Your task to perform on an android device: Open Google Image 0: 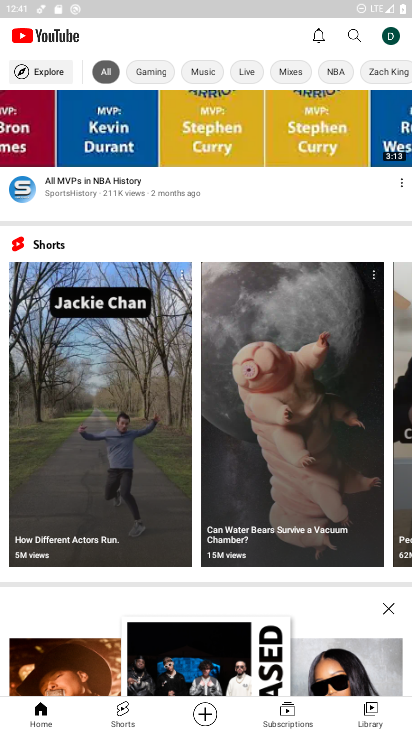
Step 0: drag from (269, 623) to (230, 54)
Your task to perform on an android device: Open Google Image 1: 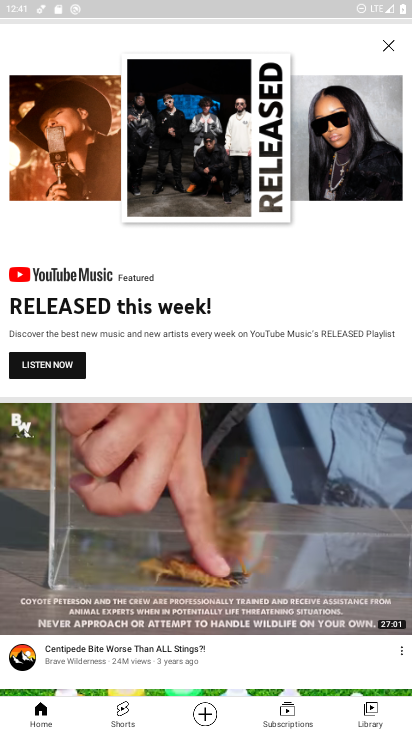
Step 1: press home button
Your task to perform on an android device: Open Google Image 2: 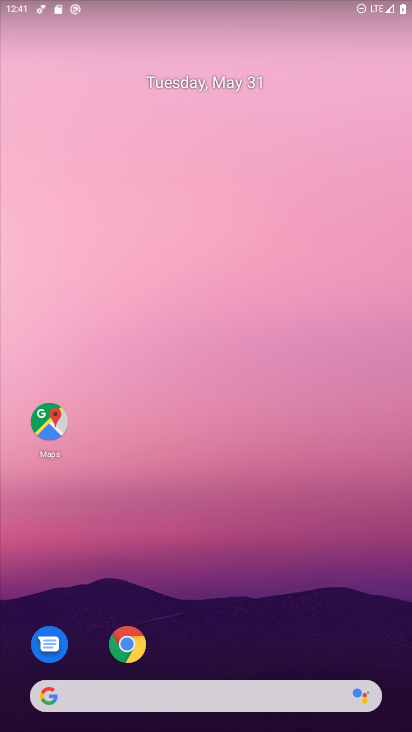
Step 2: drag from (170, 660) to (269, 133)
Your task to perform on an android device: Open Google Image 3: 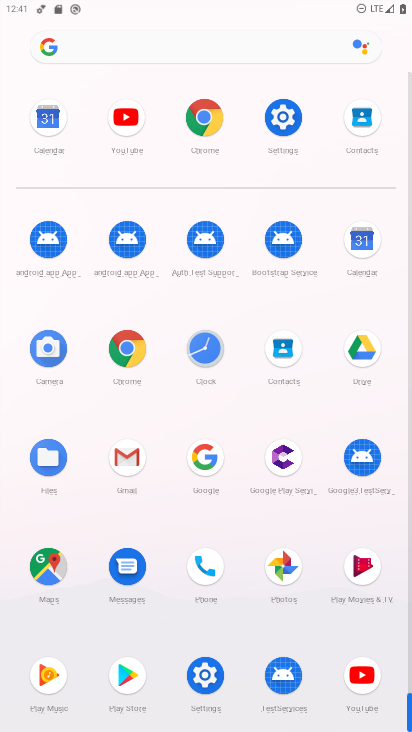
Step 3: click (204, 450)
Your task to perform on an android device: Open Google Image 4: 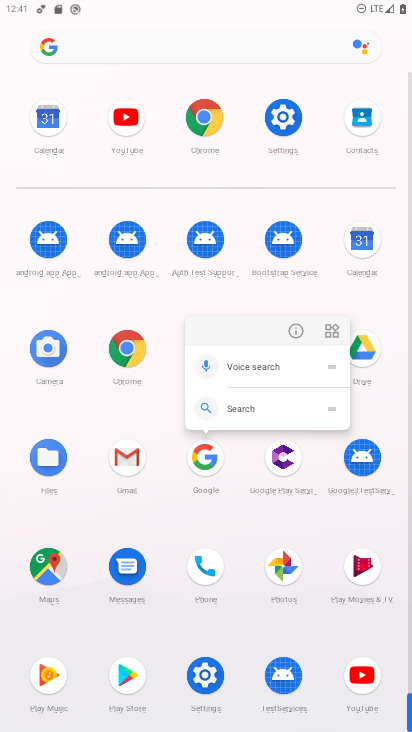
Step 4: click (302, 323)
Your task to perform on an android device: Open Google Image 5: 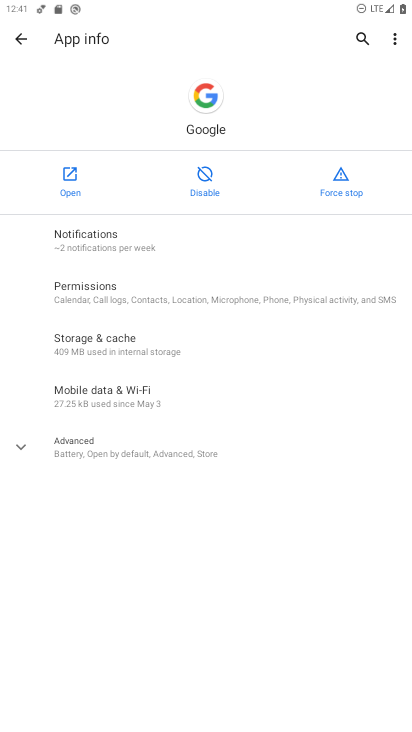
Step 5: click (72, 192)
Your task to perform on an android device: Open Google Image 6: 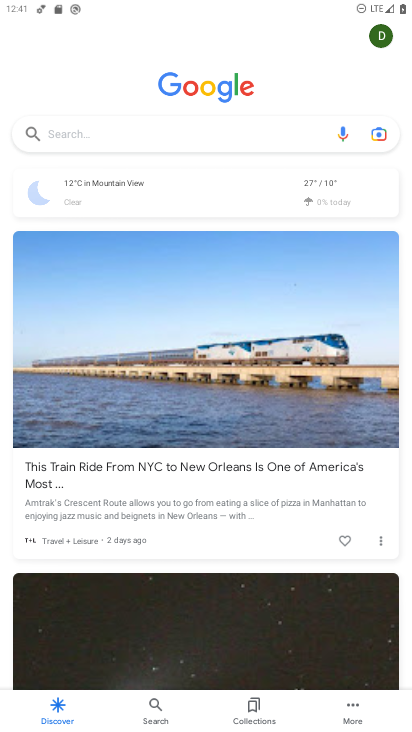
Step 6: task complete